Your task to perform on an android device: When is my next meeting? Image 0: 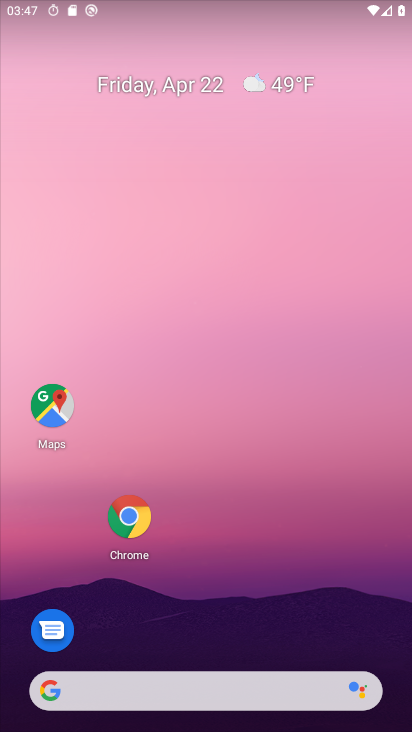
Step 0: drag from (381, 240) to (379, 148)
Your task to perform on an android device: When is my next meeting? Image 1: 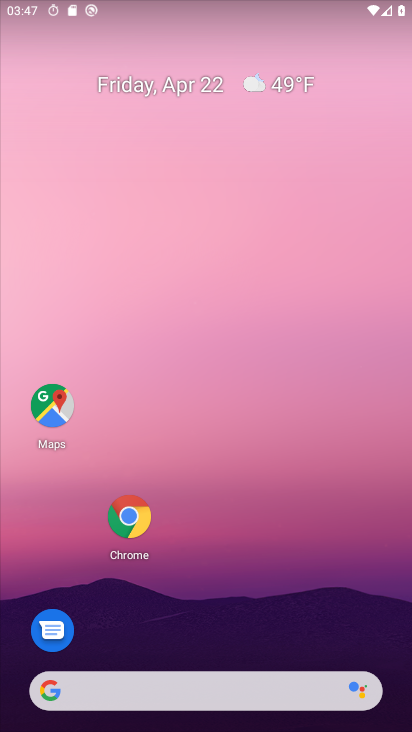
Step 1: drag from (370, 365) to (352, 169)
Your task to perform on an android device: When is my next meeting? Image 2: 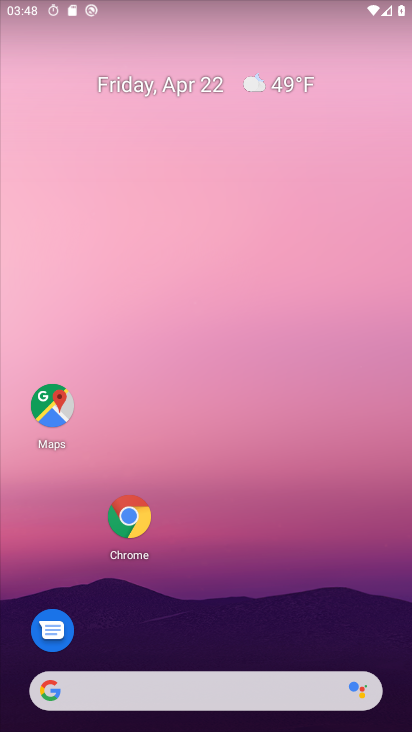
Step 2: drag from (400, 485) to (383, 243)
Your task to perform on an android device: When is my next meeting? Image 3: 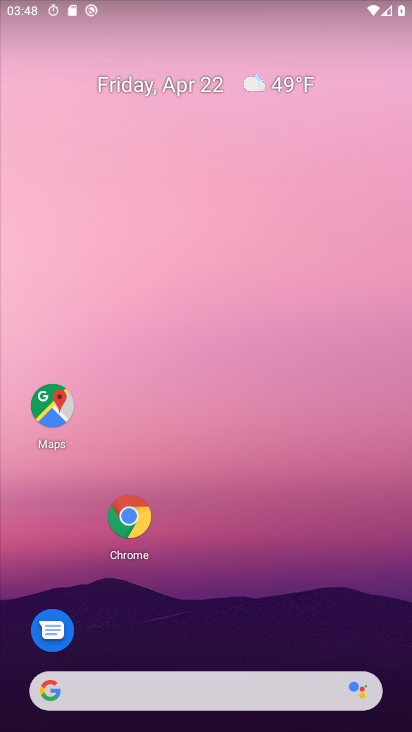
Step 3: drag from (346, 266) to (325, 130)
Your task to perform on an android device: When is my next meeting? Image 4: 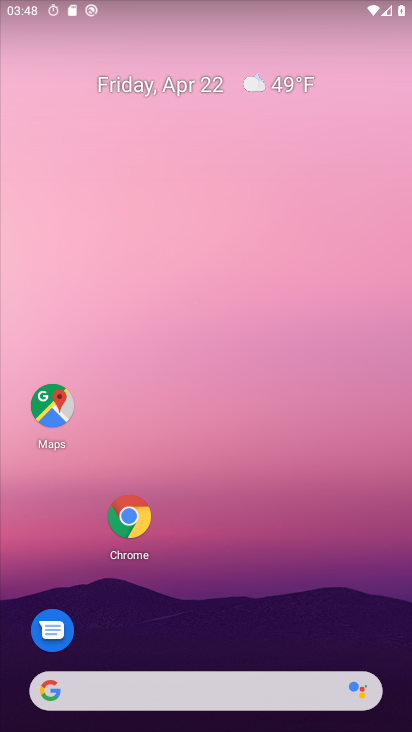
Step 4: drag from (388, 655) to (408, 59)
Your task to perform on an android device: When is my next meeting? Image 5: 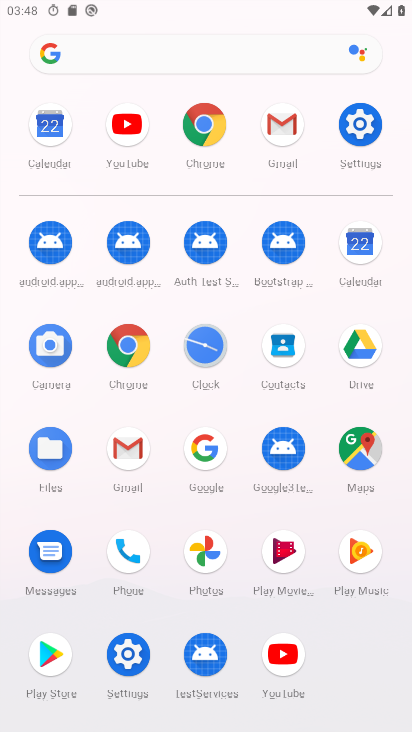
Step 5: click (356, 243)
Your task to perform on an android device: When is my next meeting? Image 6: 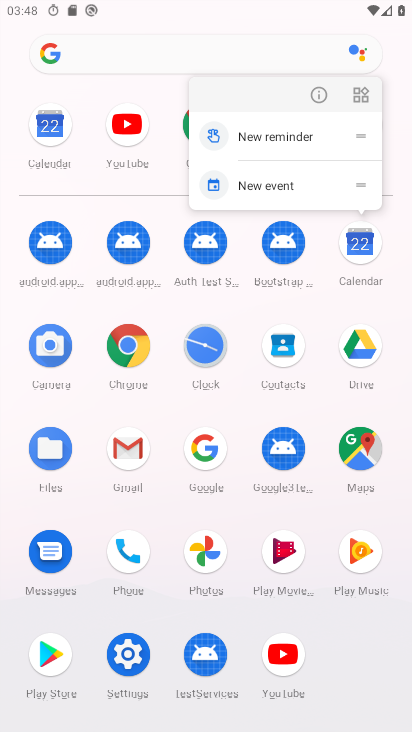
Step 6: click (351, 244)
Your task to perform on an android device: When is my next meeting? Image 7: 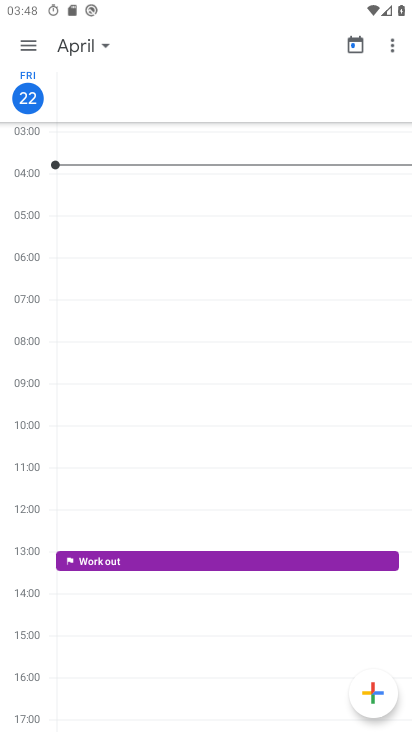
Step 7: click (101, 39)
Your task to perform on an android device: When is my next meeting? Image 8: 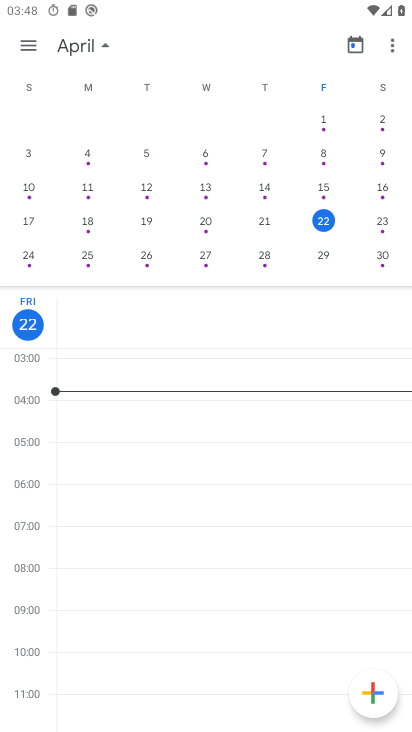
Step 8: click (25, 42)
Your task to perform on an android device: When is my next meeting? Image 9: 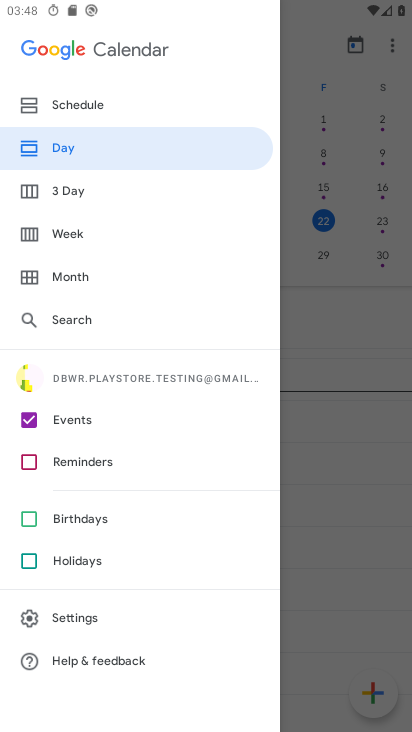
Step 9: click (93, 105)
Your task to perform on an android device: When is my next meeting? Image 10: 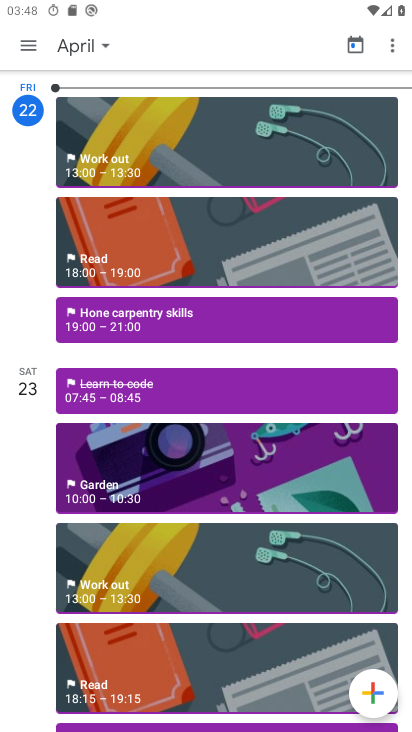
Step 10: task complete